Your task to perform on an android device: Open Google Chrome and open the bookmarks view Image 0: 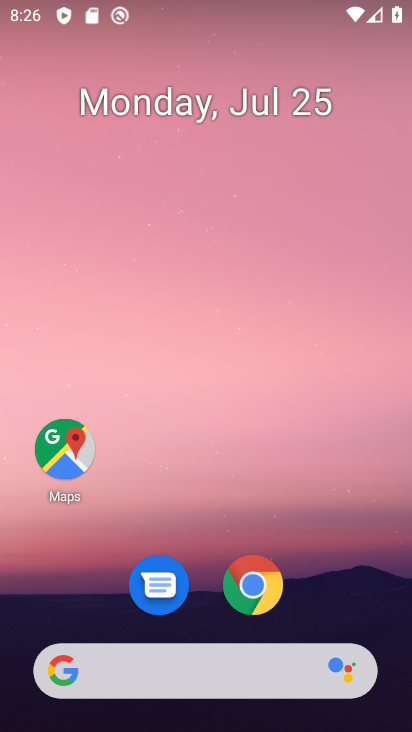
Step 0: click (254, 582)
Your task to perform on an android device: Open Google Chrome and open the bookmarks view Image 1: 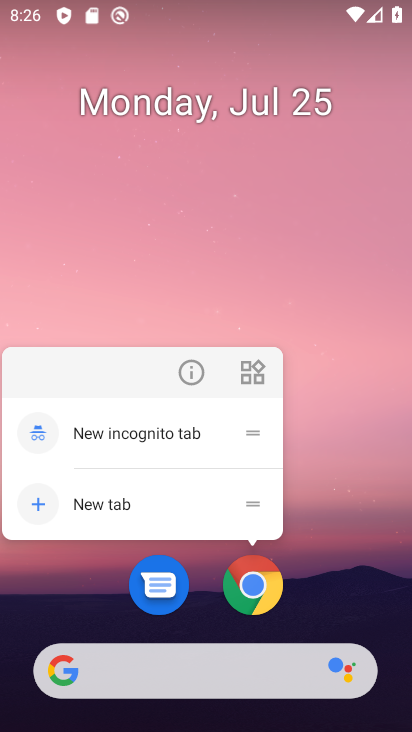
Step 1: click (254, 582)
Your task to perform on an android device: Open Google Chrome and open the bookmarks view Image 2: 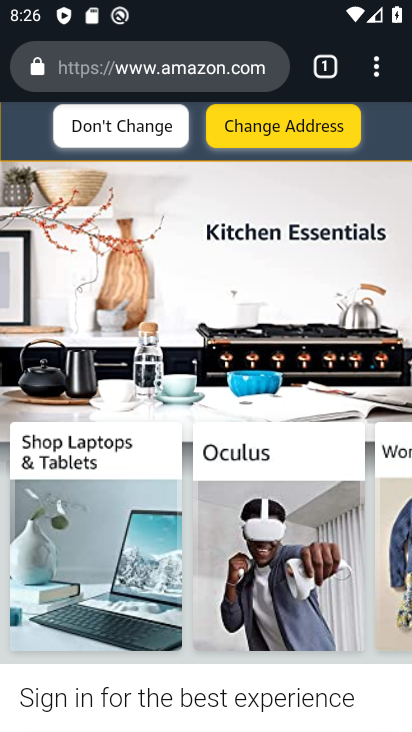
Step 2: task complete